Your task to perform on an android device: toggle sleep mode Image 0: 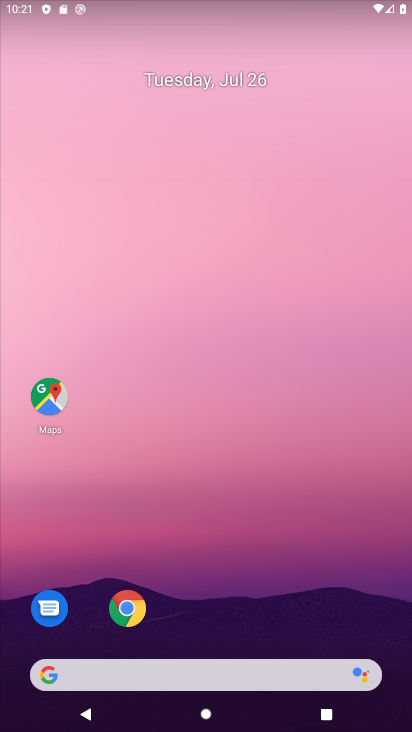
Step 0: drag from (322, 609) to (298, 114)
Your task to perform on an android device: toggle sleep mode Image 1: 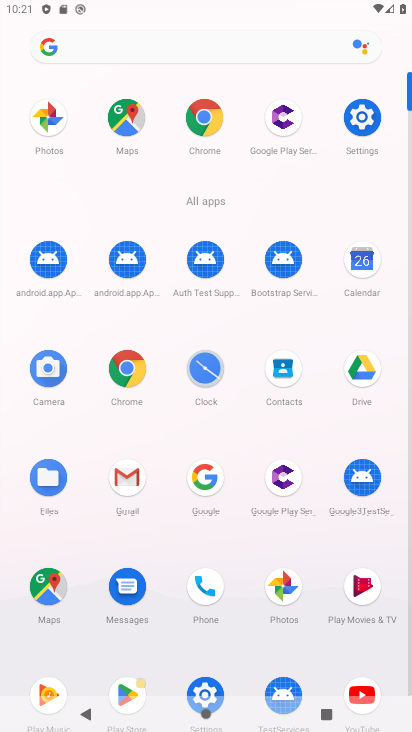
Step 1: click (371, 123)
Your task to perform on an android device: toggle sleep mode Image 2: 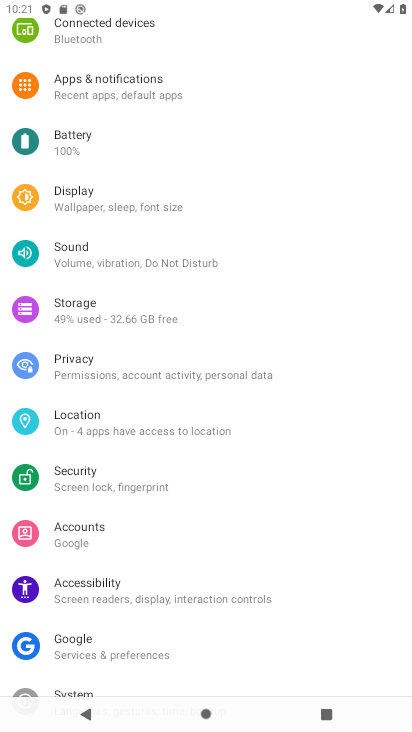
Step 2: click (116, 203)
Your task to perform on an android device: toggle sleep mode Image 3: 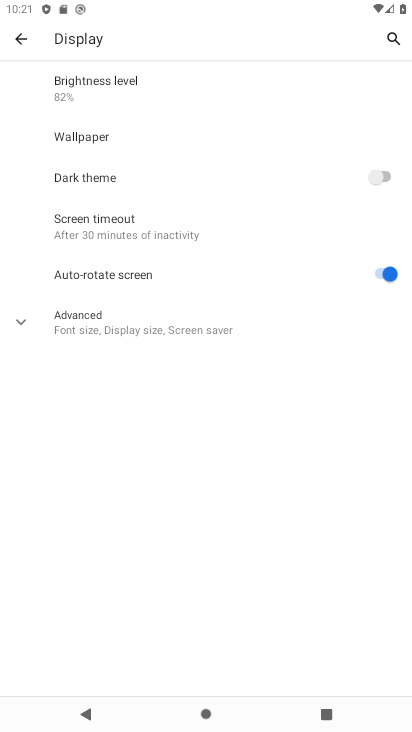
Step 3: click (140, 232)
Your task to perform on an android device: toggle sleep mode Image 4: 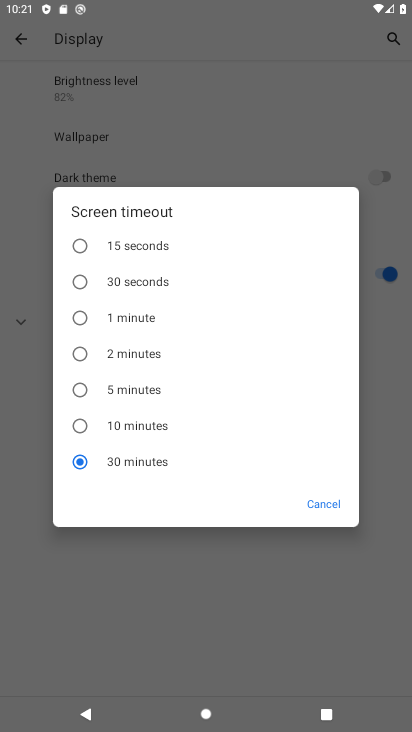
Step 4: click (141, 430)
Your task to perform on an android device: toggle sleep mode Image 5: 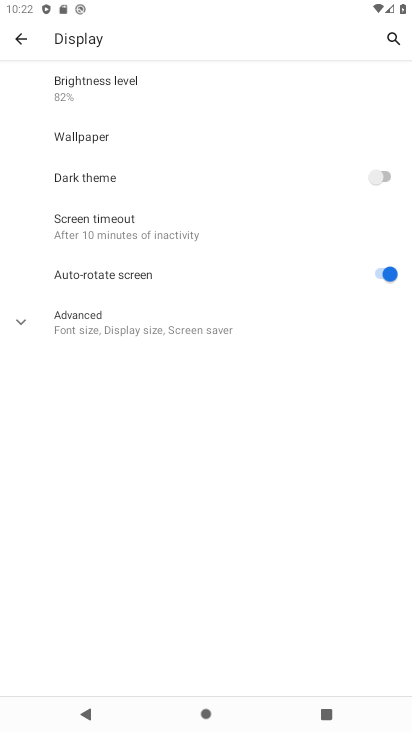
Step 5: task complete